Your task to perform on an android device: Go to location settings Image 0: 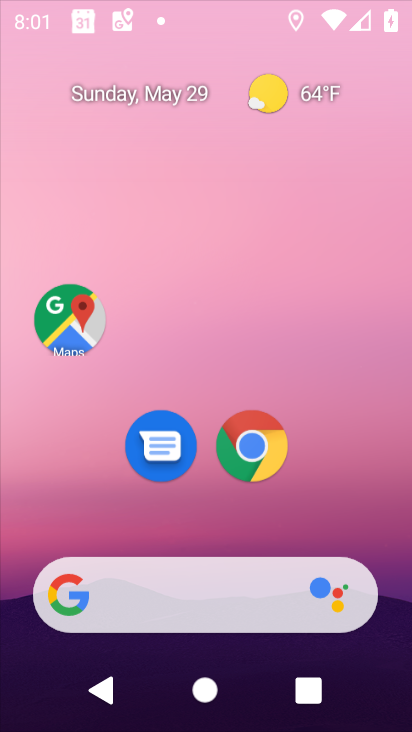
Step 0: click (296, 167)
Your task to perform on an android device: Go to location settings Image 1: 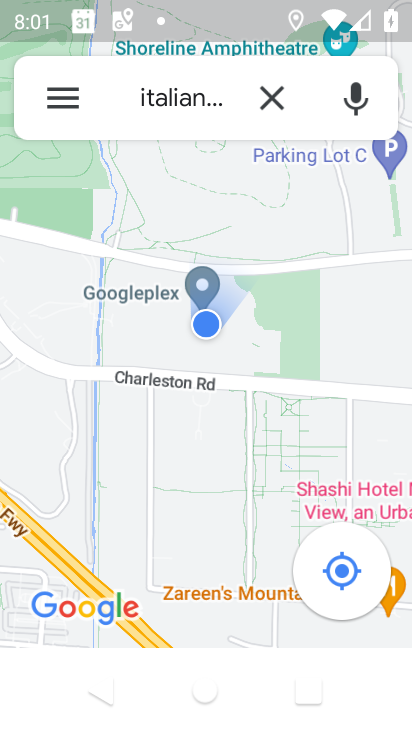
Step 1: press home button
Your task to perform on an android device: Go to location settings Image 2: 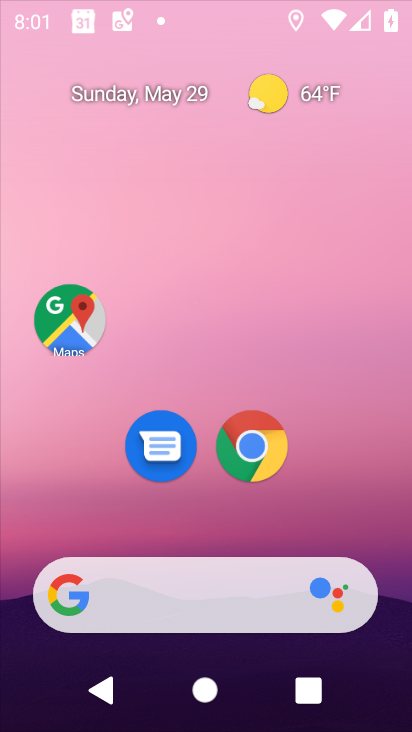
Step 2: drag from (238, 577) to (295, 20)
Your task to perform on an android device: Go to location settings Image 3: 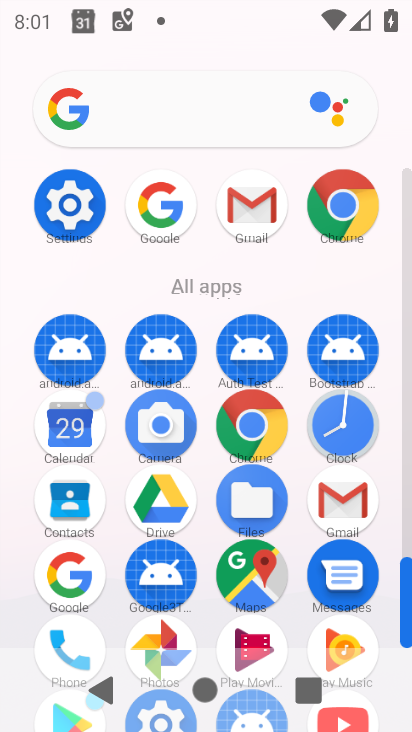
Step 3: click (73, 202)
Your task to perform on an android device: Go to location settings Image 4: 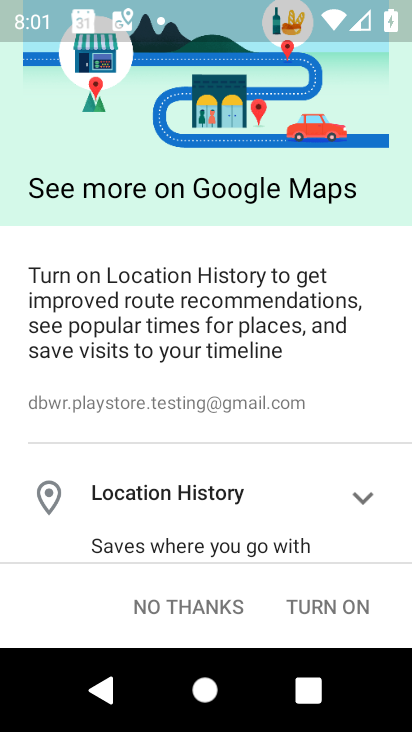
Step 4: press home button
Your task to perform on an android device: Go to location settings Image 5: 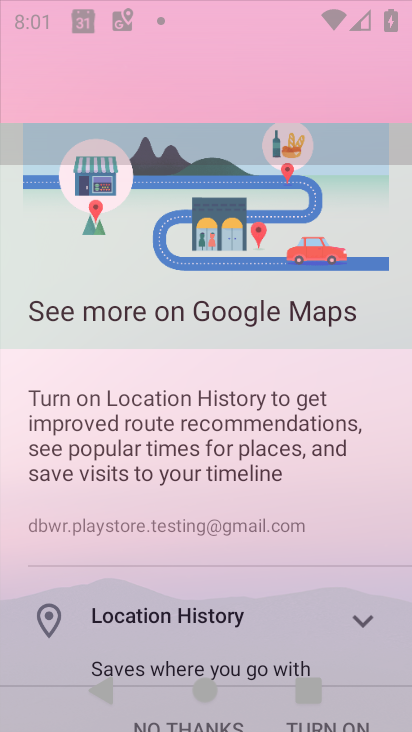
Step 5: drag from (236, 530) to (321, 13)
Your task to perform on an android device: Go to location settings Image 6: 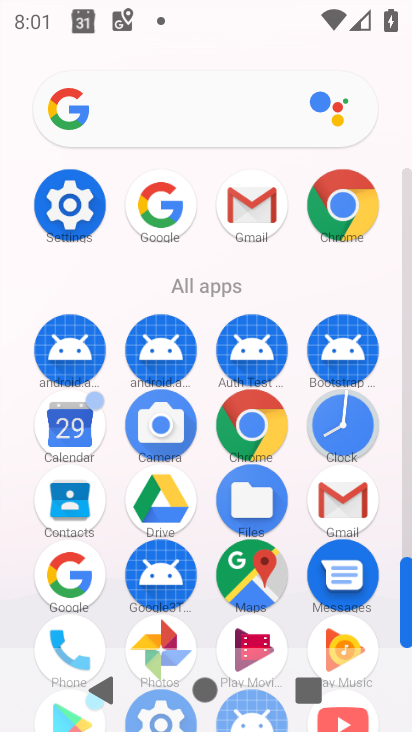
Step 6: click (69, 212)
Your task to perform on an android device: Go to location settings Image 7: 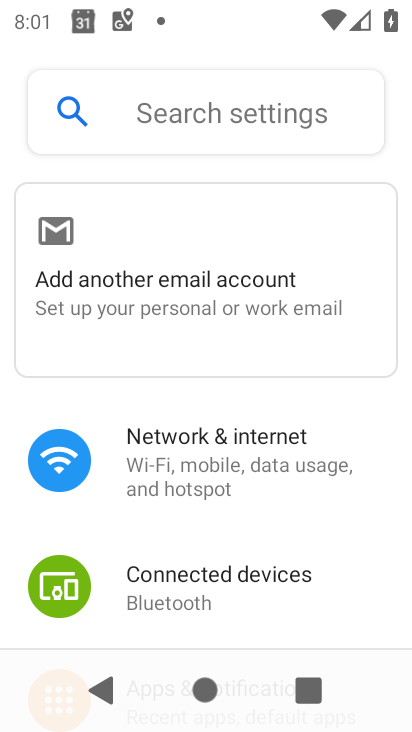
Step 7: drag from (223, 629) to (256, 109)
Your task to perform on an android device: Go to location settings Image 8: 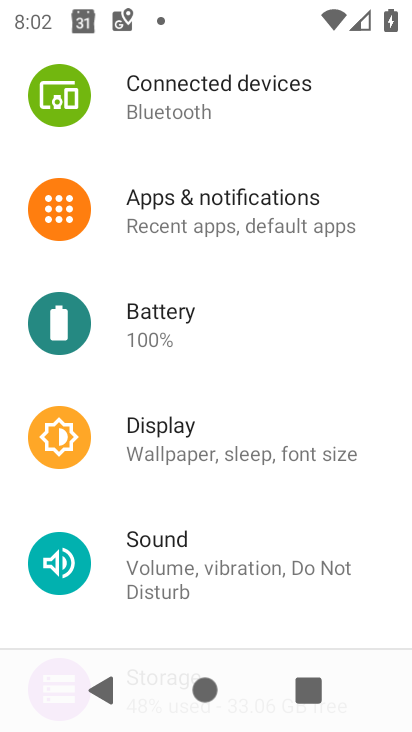
Step 8: drag from (196, 562) to (306, 112)
Your task to perform on an android device: Go to location settings Image 9: 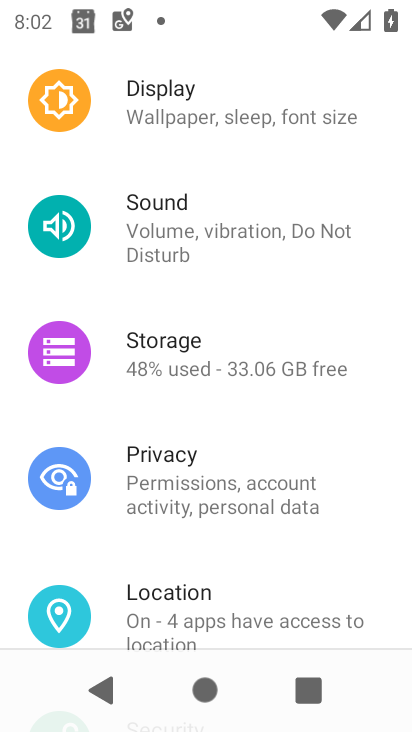
Step 9: click (178, 583)
Your task to perform on an android device: Go to location settings Image 10: 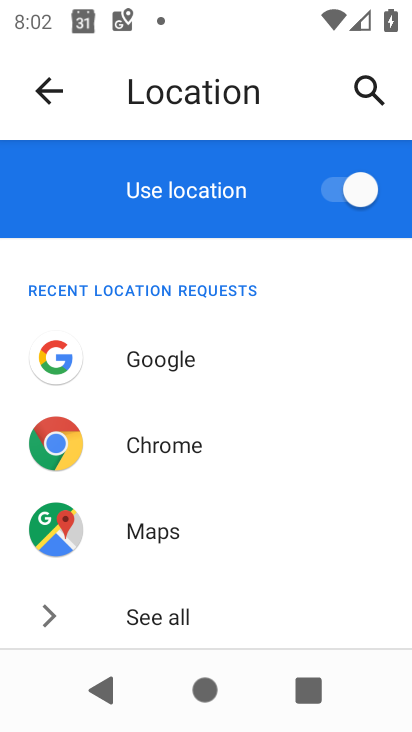
Step 10: task complete